Your task to perform on an android device: Open maps Image 0: 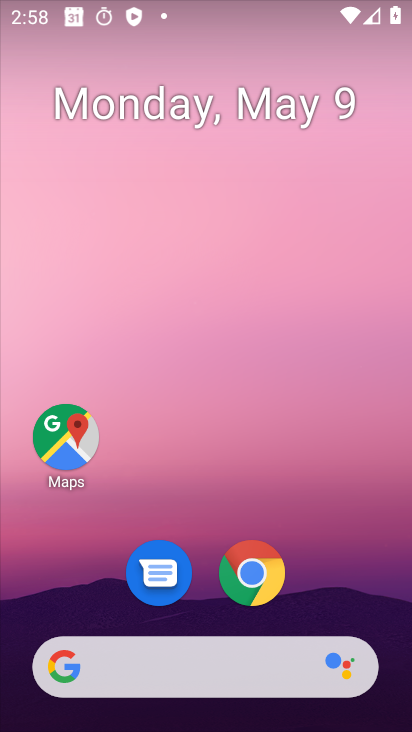
Step 0: drag from (346, 530) to (271, 15)
Your task to perform on an android device: Open maps Image 1: 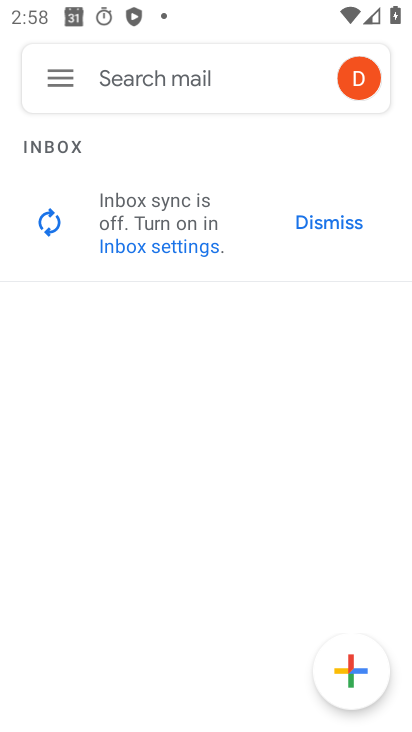
Step 1: press back button
Your task to perform on an android device: Open maps Image 2: 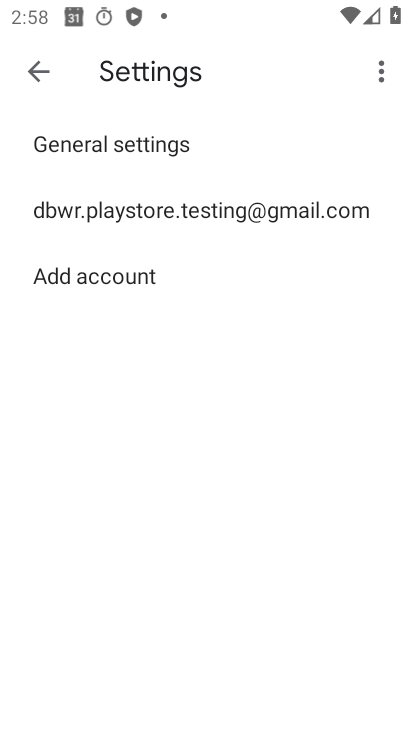
Step 2: press back button
Your task to perform on an android device: Open maps Image 3: 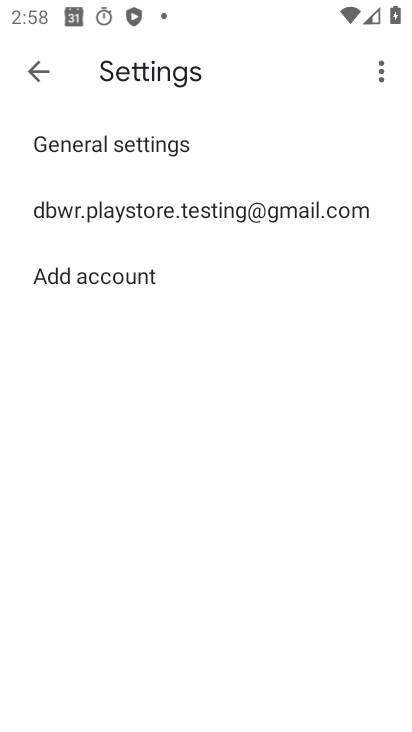
Step 3: press back button
Your task to perform on an android device: Open maps Image 4: 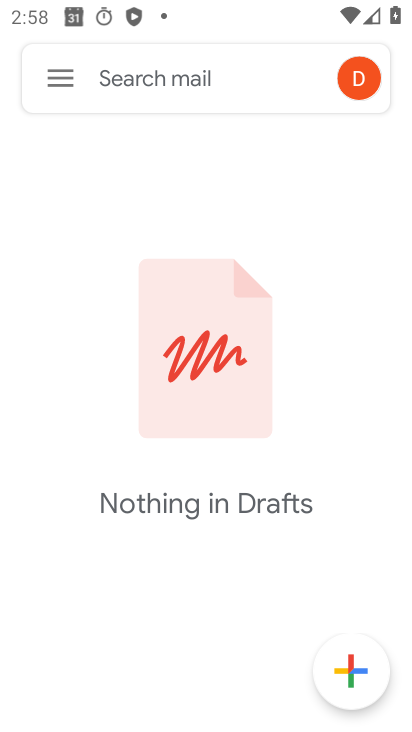
Step 4: press back button
Your task to perform on an android device: Open maps Image 5: 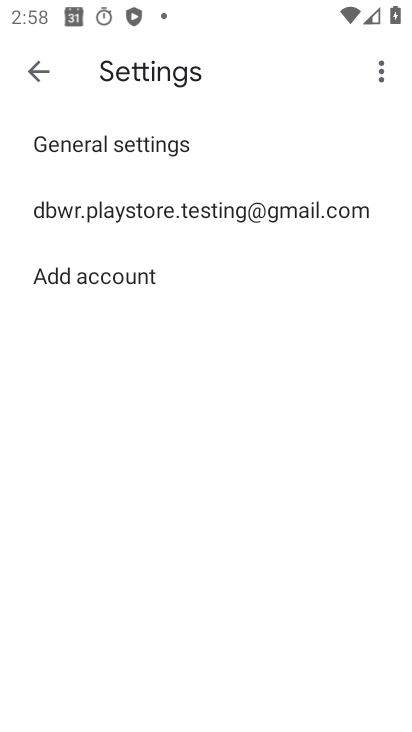
Step 5: press home button
Your task to perform on an android device: Open maps Image 6: 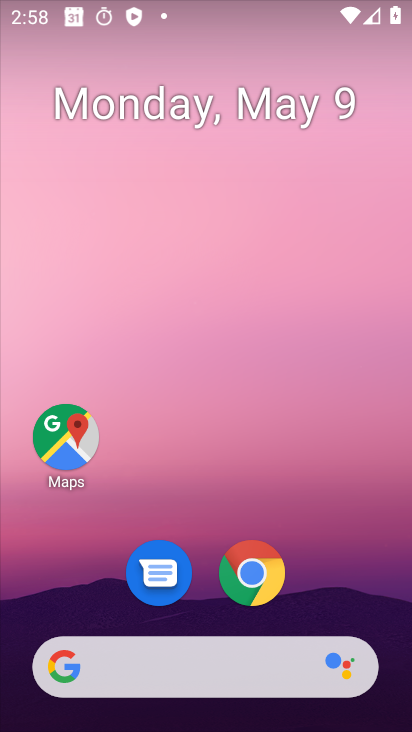
Step 6: drag from (346, 633) to (176, 9)
Your task to perform on an android device: Open maps Image 7: 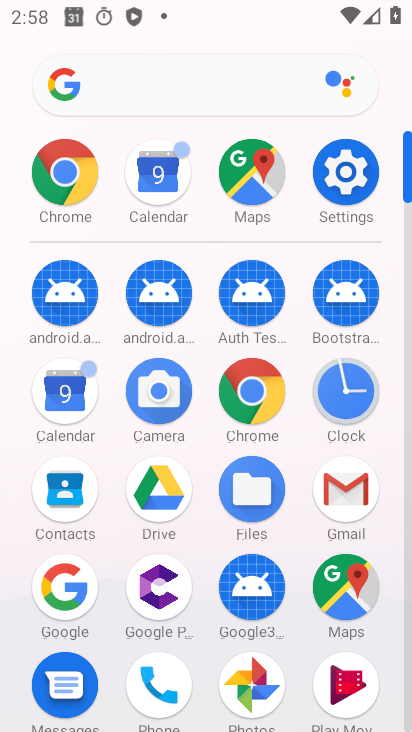
Step 7: click (246, 181)
Your task to perform on an android device: Open maps Image 8: 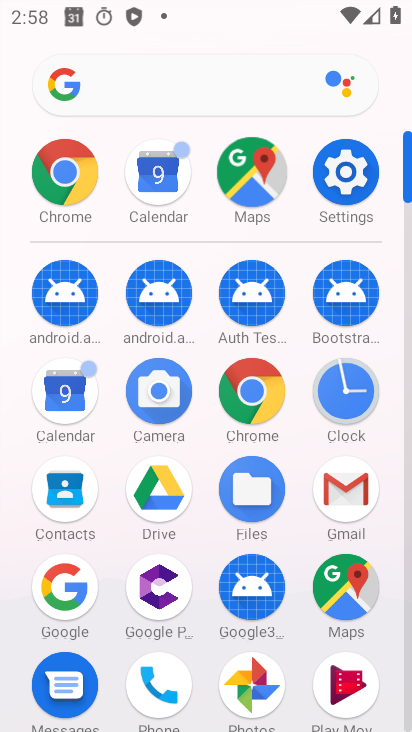
Step 8: click (245, 180)
Your task to perform on an android device: Open maps Image 9: 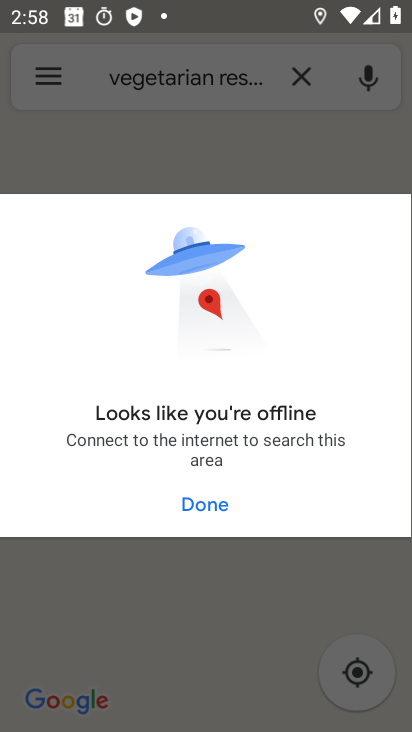
Step 9: task complete